Your task to perform on an android device: turn notification dots on Image 0: 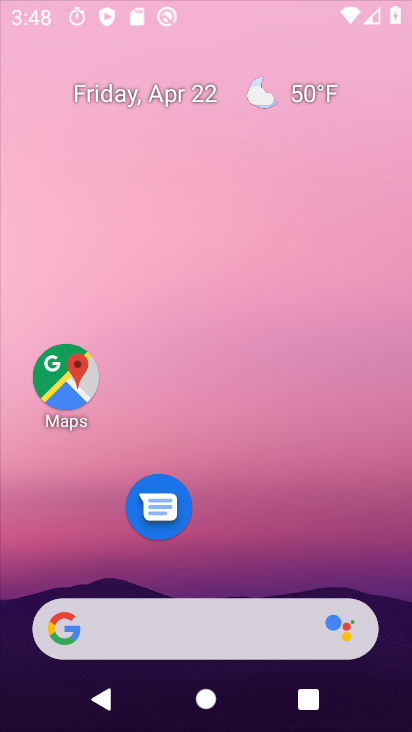
Step 0: click (260, 97)
Your task to perform on an android device: turn notification dots on Image 1: 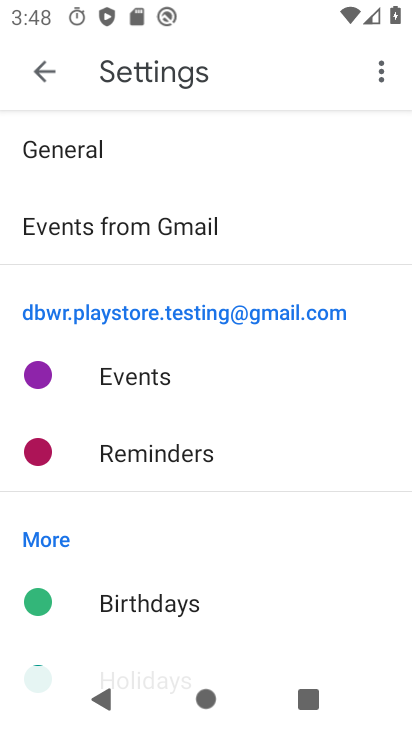
Step 1: click (50, 66)
Your task to perform on an android device: turn notification dots on Image 2: 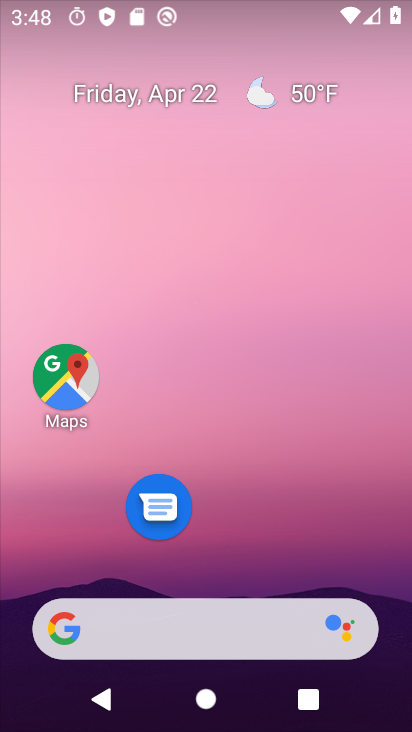
Step 2: drag from (232, 568) to (278, 112)
Your task to perform on an android device: turn notification dots on Image 3: 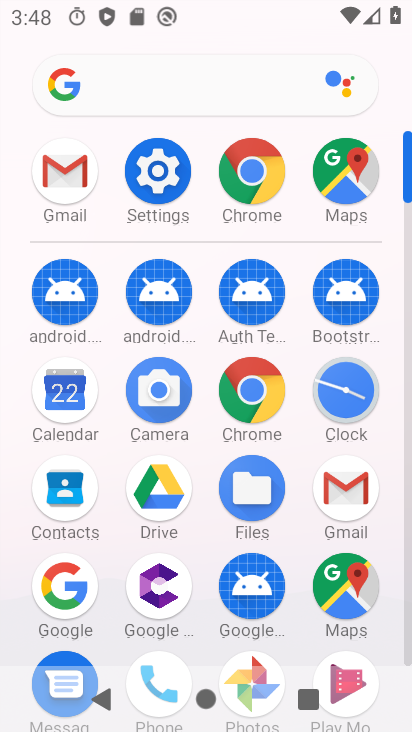
Step 3: click (170, 171)
Your task to perform on an android device: turn notification dots on Image 4: 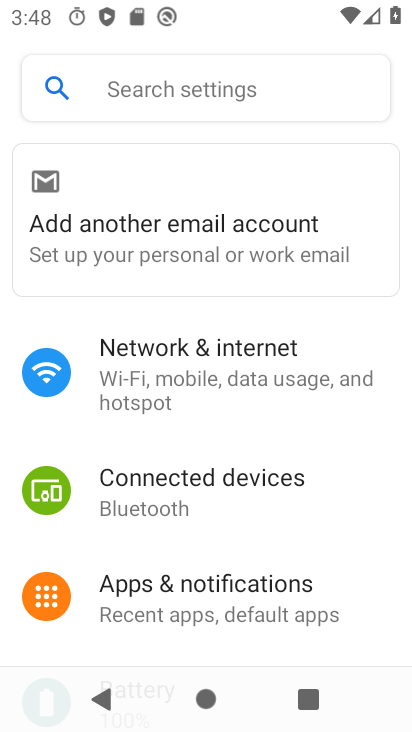
Step 4: click (224, 590)
Your task to perform on an android device: turn notification dots on Image 5: 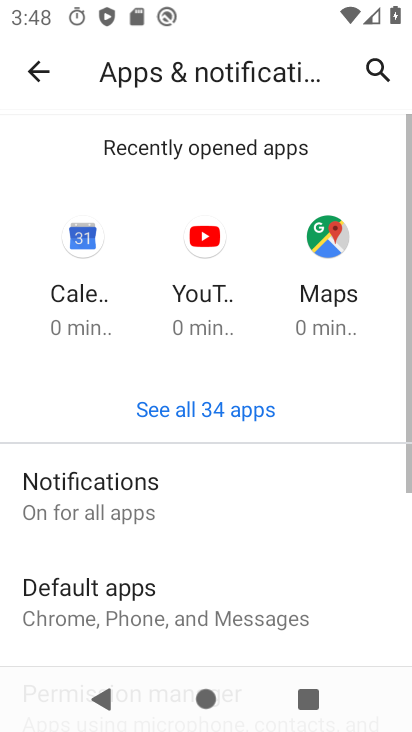
Step 5: drag from (197, 572) to (268, 161)
Your task to perform on an android device: turn notification dots on Image 6: 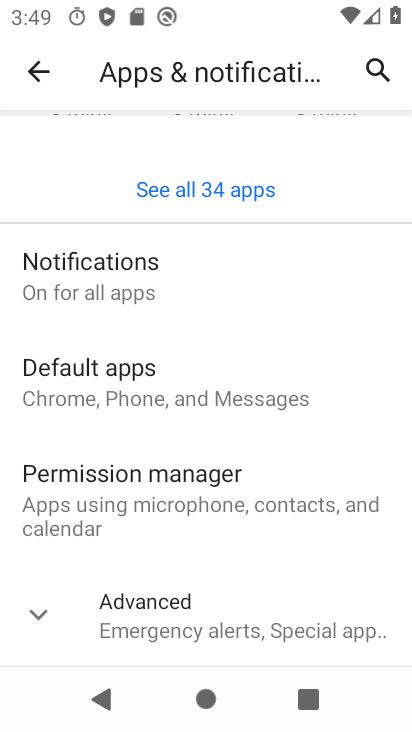
Step 6: click (196, 282)
Your task to perform on an android device: turn notification dots on Image 7: 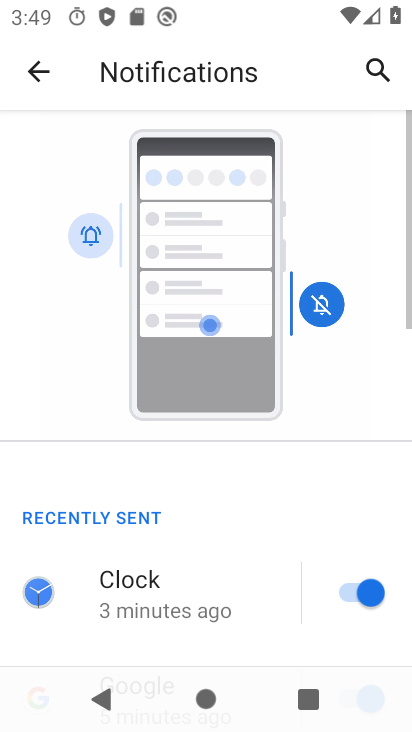
Step 7: drag from (199, 602) to (277, 44)
Your task to perform on an android device: turn notification dots on Image 8: 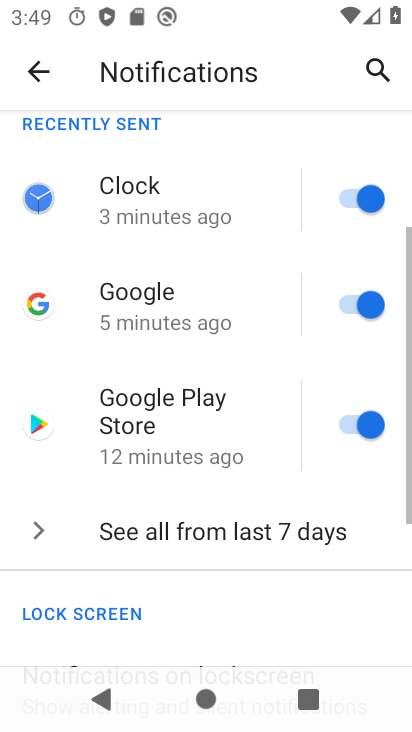
Step 8: drag from (212, 563) to (267, 66)
Your task to perform on an android device: turn notification dots on Image 9: 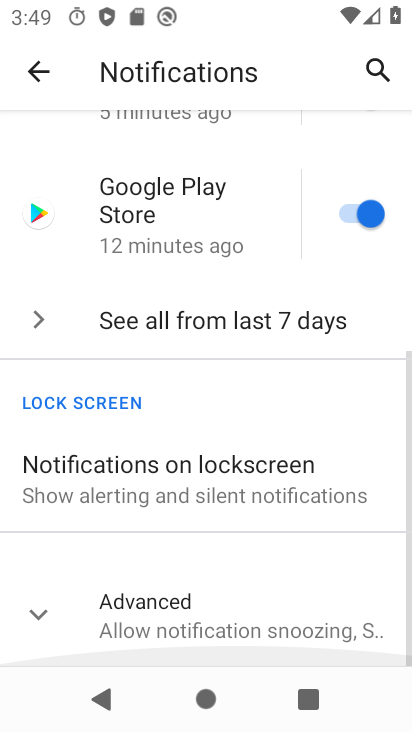
Step 9: drag from (221, 579) to (287, 53)
Your task to perform on an android device: turn notification dots on Image 10: 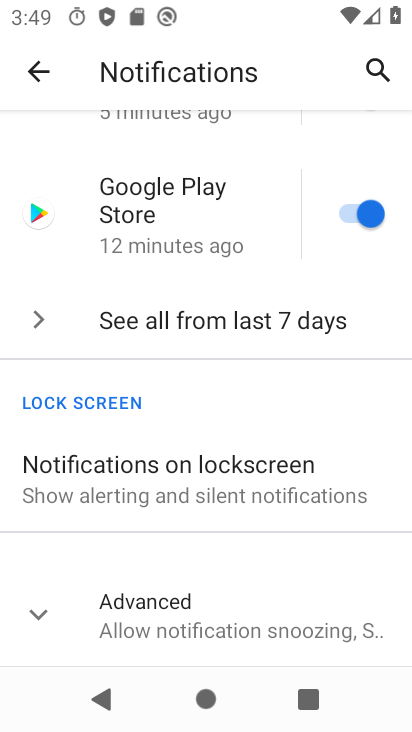
Step 10: click (153, 607)
Your task to perform on an android device: turn notification dots on Image 11: 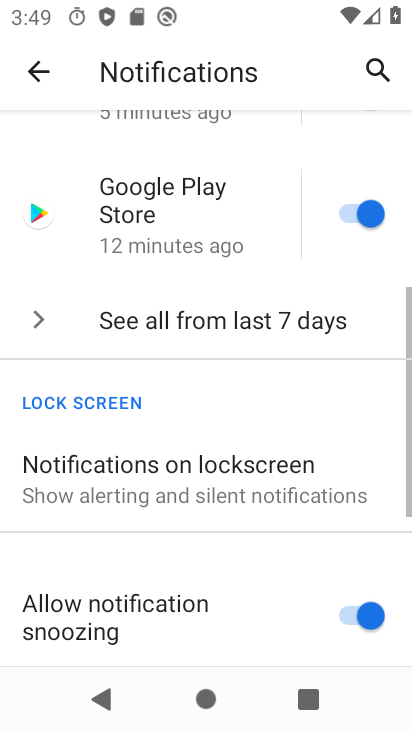
Step 11: drag from (175, 547) to (248, 133)
Your task to perform on an android device: turn notification dots on Image 12: 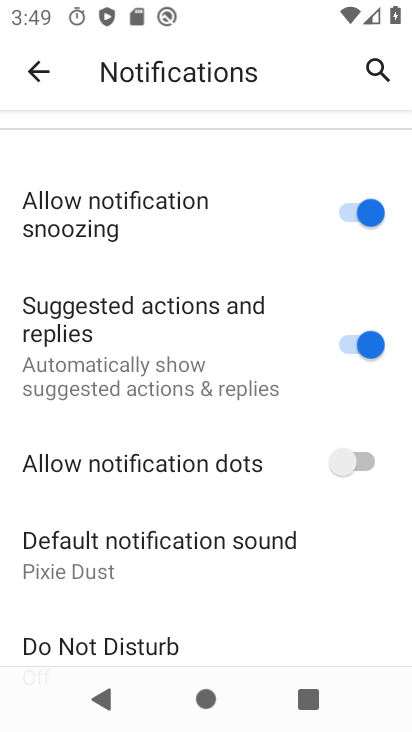
Step 12: click (339, 456)
Your task to perform on an android device: turn notification dots on Image 13: 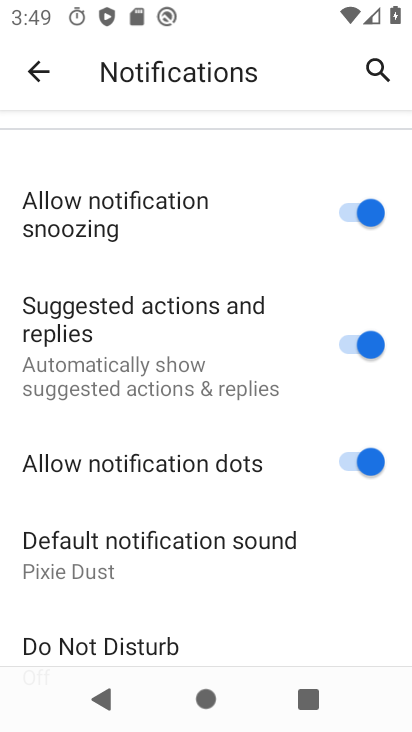
Step 13: task complete